Your task to perform on an android device: Open location settings Image 0: 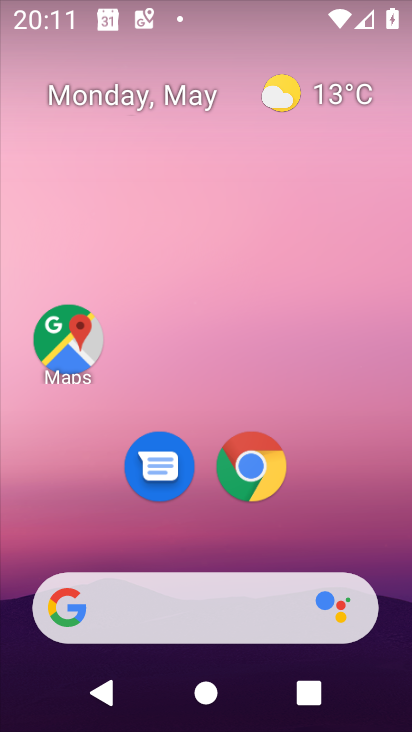
Step 0: drag from (302, 516) to (314, 273)
Your task to perform on an android device: Open location settings Image 1: 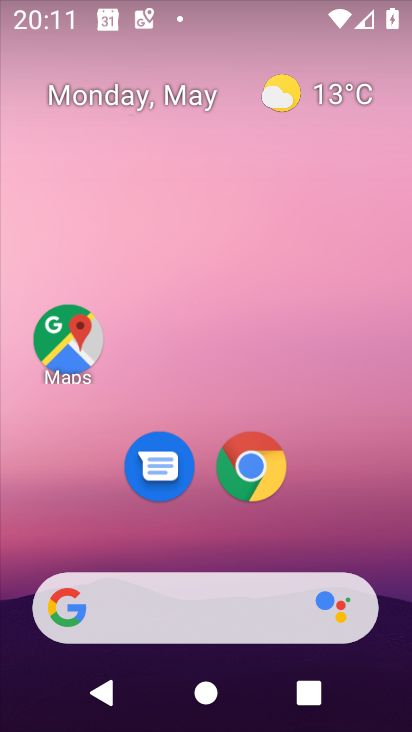
Step 1: drag from (349, 490) to (305, 389)
Your task to perform on an android device: Open location settings Image 2: 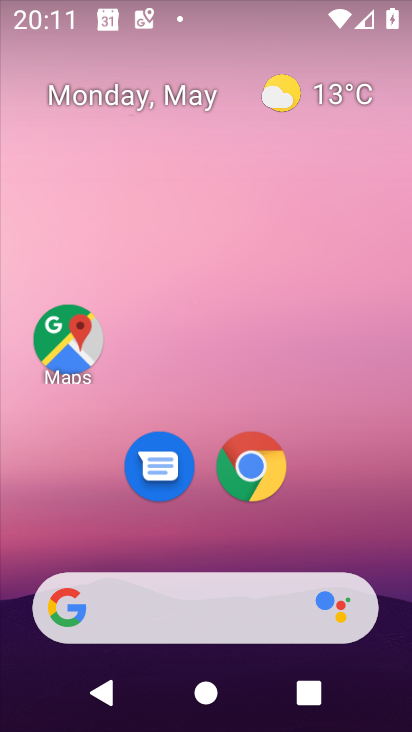
Step 2: drag from (287, 566) to (349, 210)
Your task to perform on an android device: Open location settings Image 3: 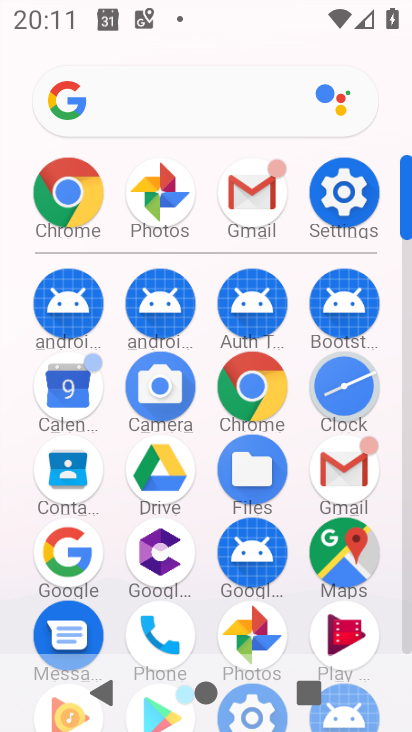
Step 3: click (341, 187)
Your task to perform on an android device: Open location settings Image 4: 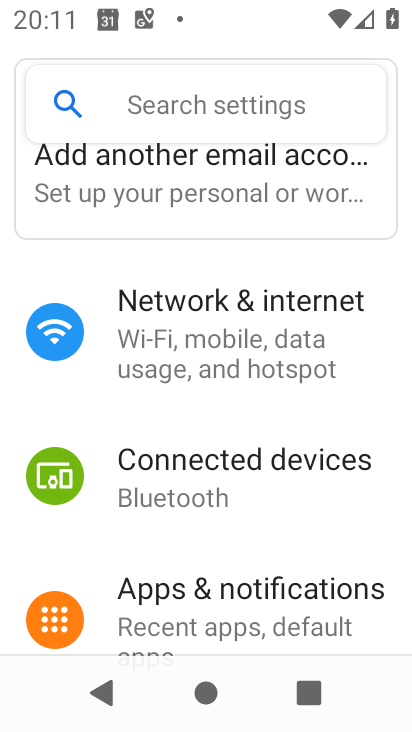
Step 4: drag from (263, 607) to (306, 201)
Your task to perform on an android device: Open location settings Image 5: 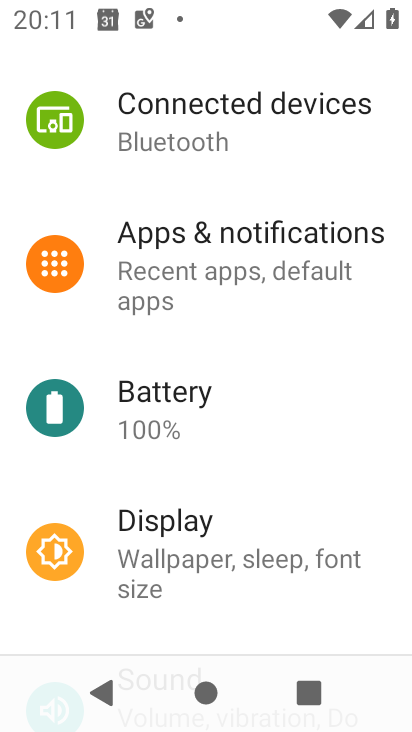
Step 5: drag from (248, 561) to (313, 242)
Your task to perform on an android device: Open location settings Image 6: 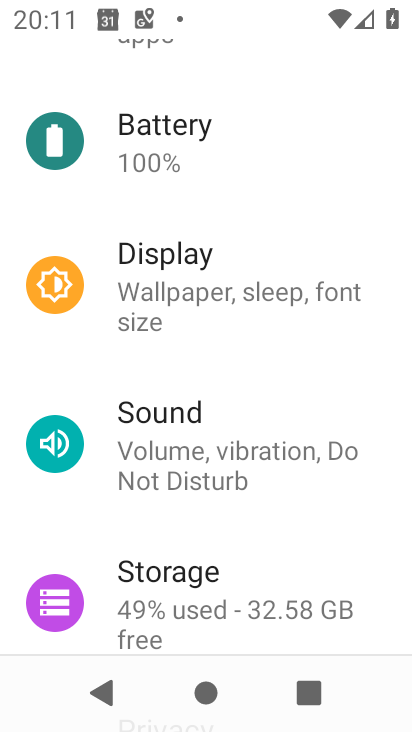
Step 6: drag from (254, 557) to (330, 191)
Your task to perform on an android device: Open location settings Image 7: 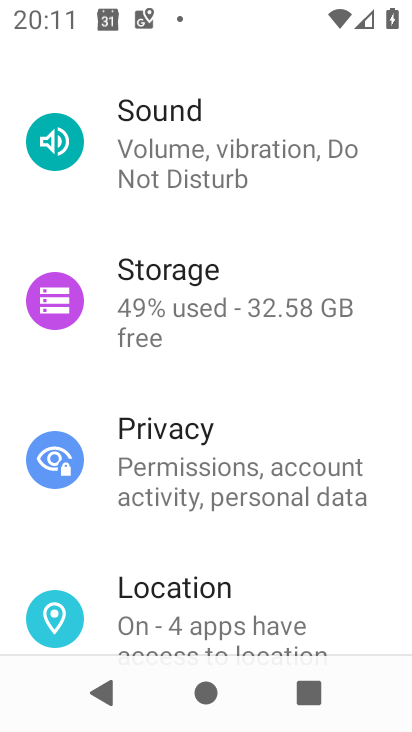
Step 7: click (221, 611)
Your task to perform on an android device: Open location settings Image 8: 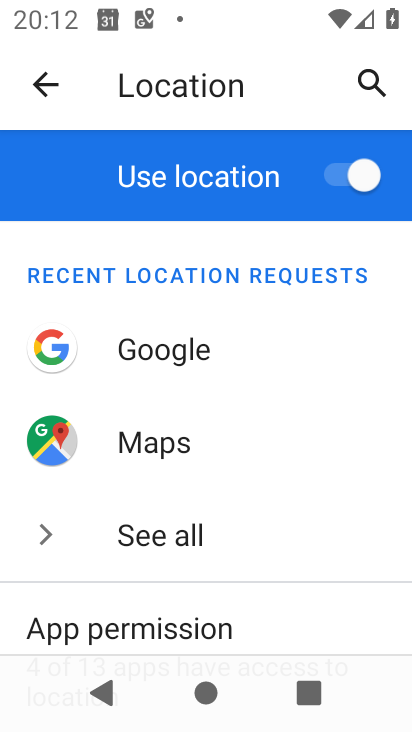
Step 8: task complete